Your task to perform on an android device: turn off picture-in-picture Image 0: 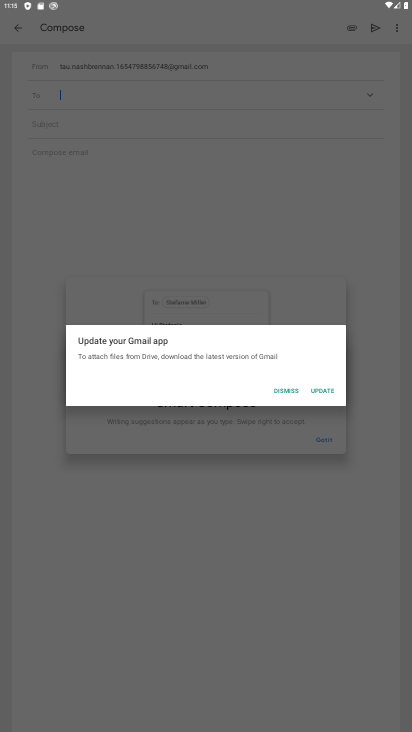
Step 0: press home button
Your task to perform on an android device: turn off picture-in-picture Image 1: 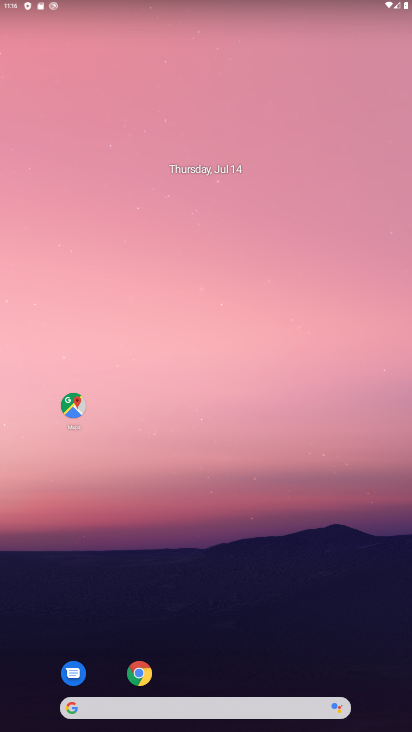
Step 1: click (137, 674)
Your task to perform on an android device: turn off picture-in-picture Image 2: 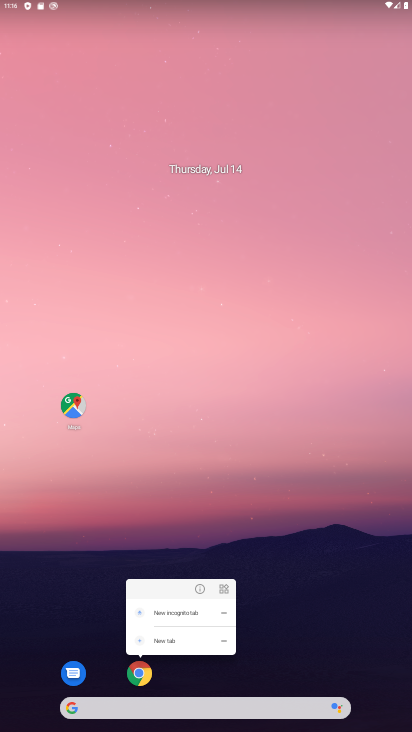
Step 2: click (203, 594)
Your task to perform on an android device: turn off picture-in-picture Image 3: 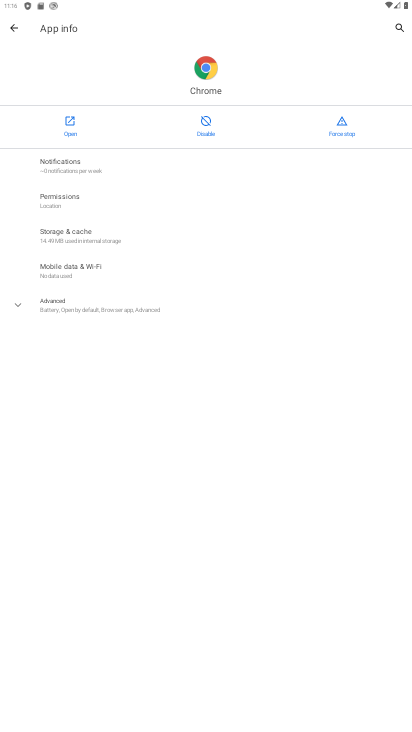
Step 3: click (108, 307)
Your task to perform on an android device: turn off picture-in-picture Image 4: 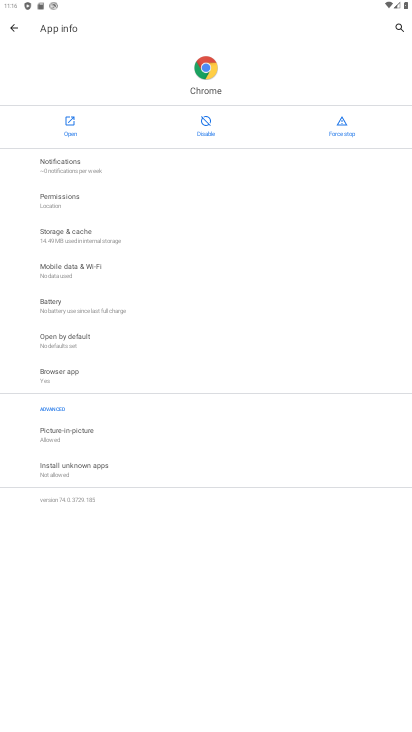
Step 4: click (68, 430)
Your task to perform on an android device: turn off picture-in-picture Image 5: 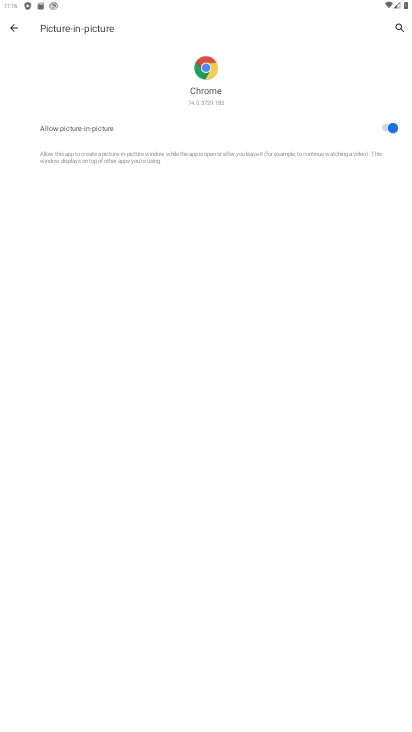
Step 5: click (391, 127)
Your task to perform on an android device: turn off picture-in-picture Image 6: 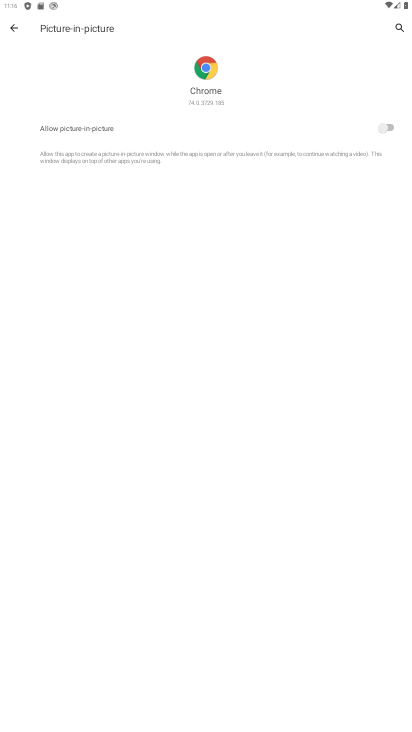
Step 6: task complete